Your task to perform on an android device: clear all cookies in the chrome app Image 0: 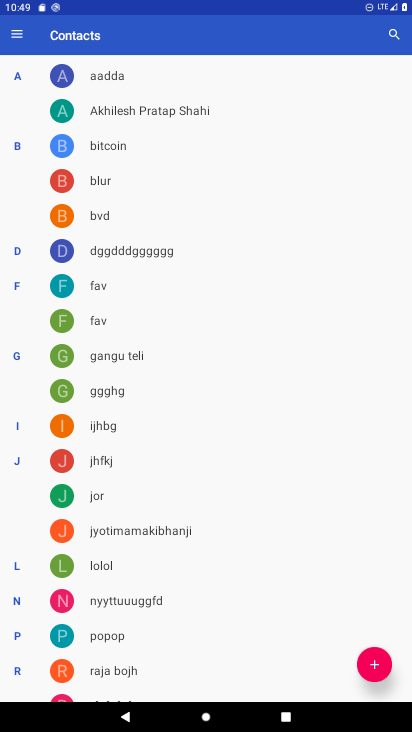
Step 0: press home button
Your task to perform on an android device: clear all cookies in the chrome app Image 1: 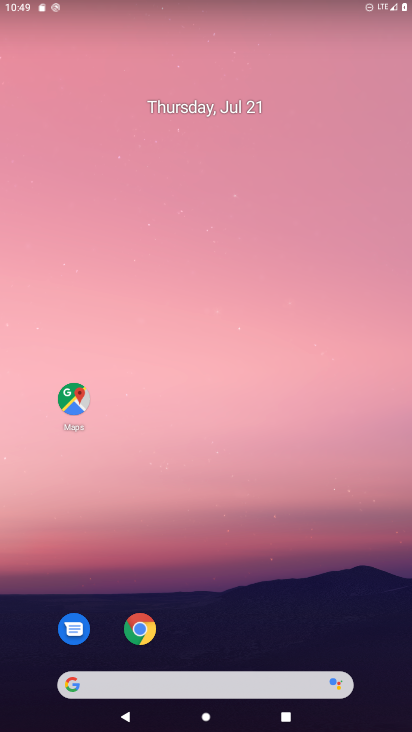
Step 1: click (133, 632)
Your task to perform on an android device: clear all cookies in the chrome app Image 2: 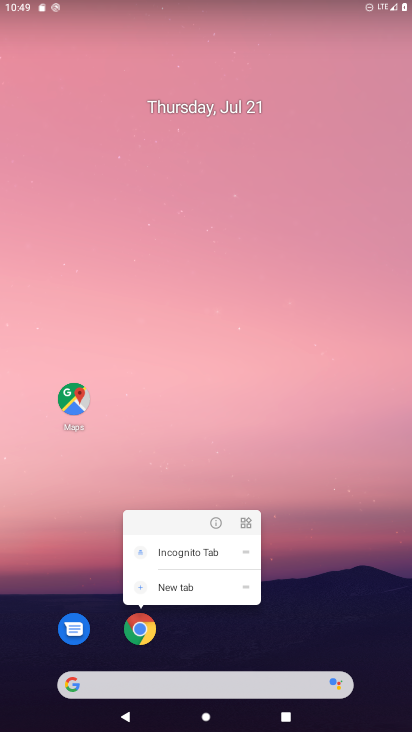
Step 2: click (142, 640)
Your task to perform on an android device: clear all cookies in the chrome app Image 3: 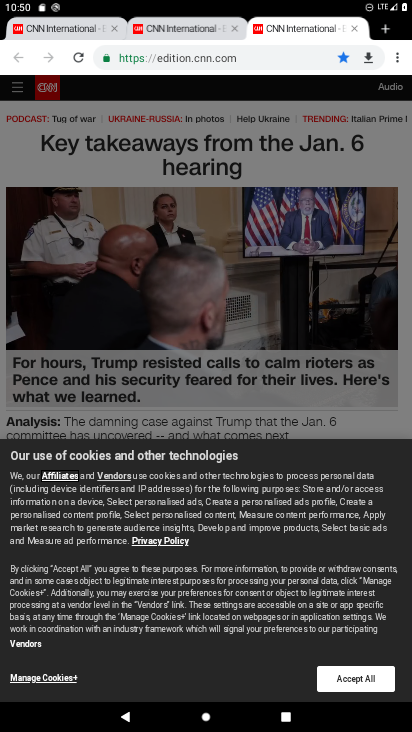
Step 3: drag from (401, 56) to (280, 385)
Your task to perform on an android device: clear all cookies in the chrome app Image 4: 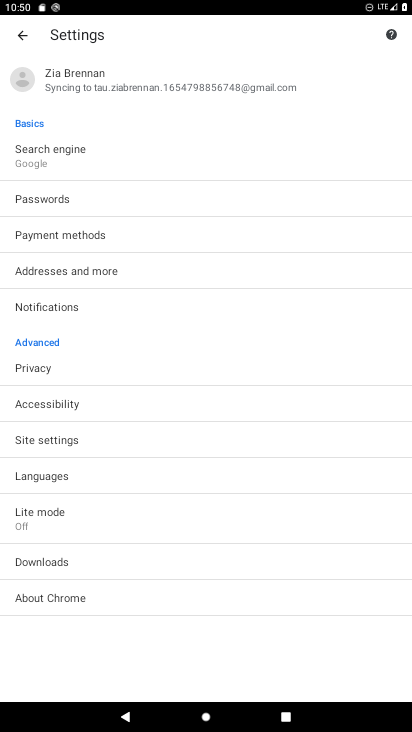
Step 4: click (68, 367)
Your task to perform on an android device: clear all cookies in the chrome app Image 5: 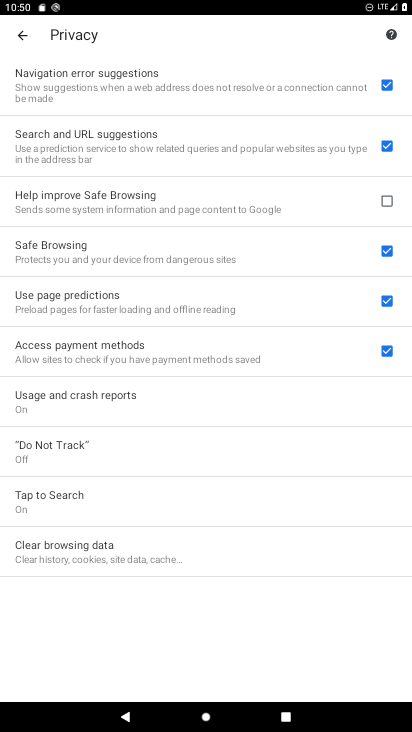
Step 5: click (111, 553)
Your task to perform on an android device: clear all cookies in the chrome app Image 6: 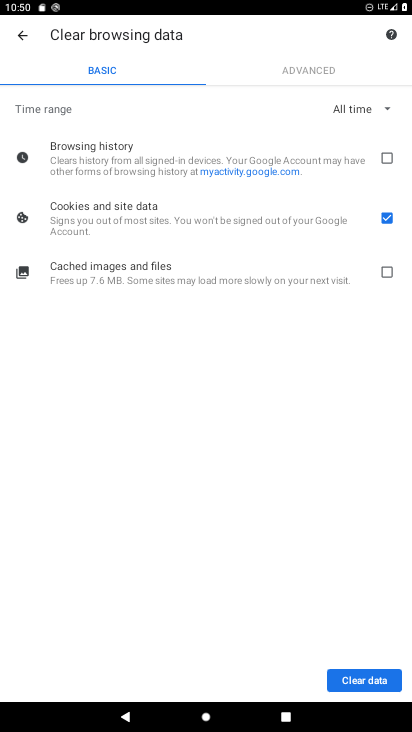
Step 6: click (375, 676)
Your task to perform on an android device: clear all cookies in the chrome app Image 7: 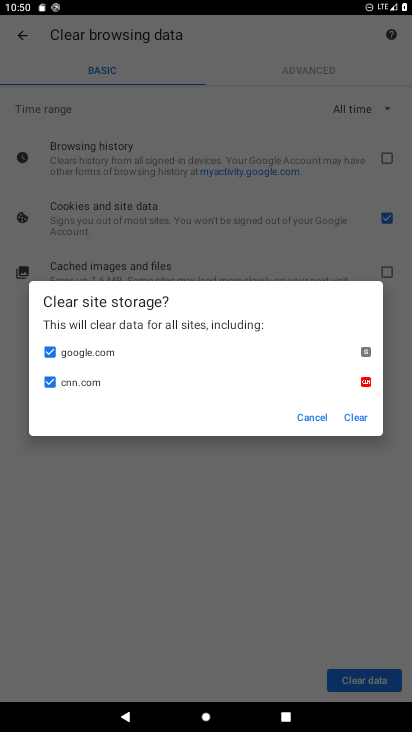
Step 7: click (351, 421)
Your task to perform on an android device: clear all cookies in the chrome app Image 8: 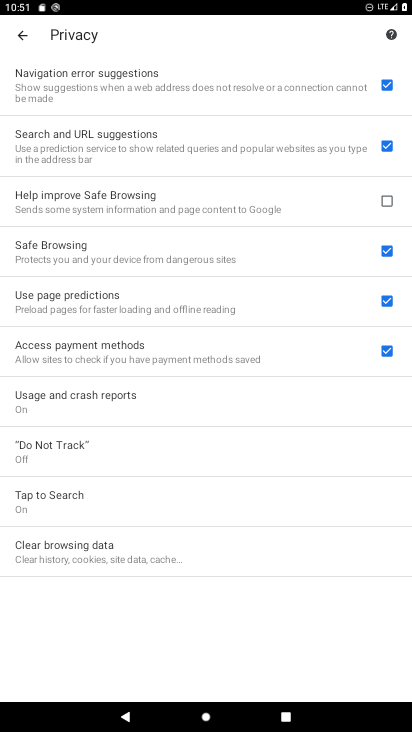
Step 8: task complete